Your task to perform on an android device: Open Android settings Image 0: 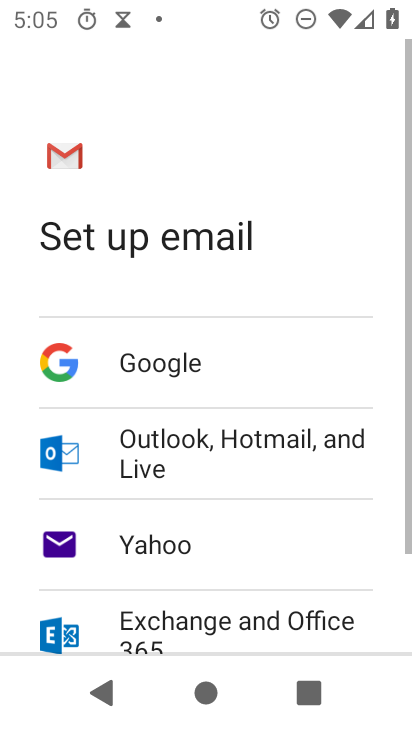
Step 0: press back button
Your task to perform on an android device: Open Android settings Image 1: 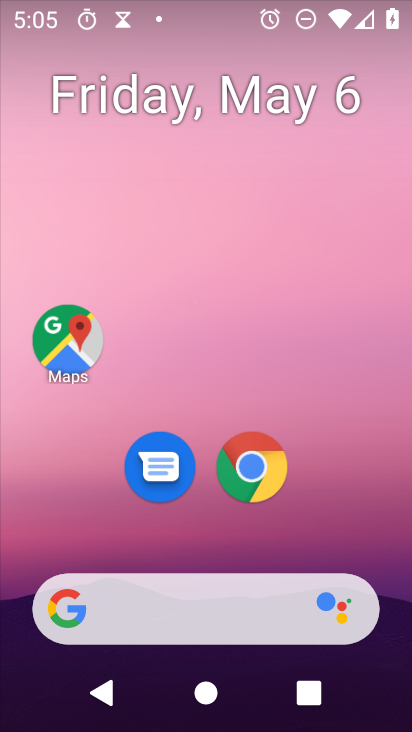
Step 1: drag from (297, 521) to (273, 24)
Your task to perform on an android device: Open Android settings Image 2: 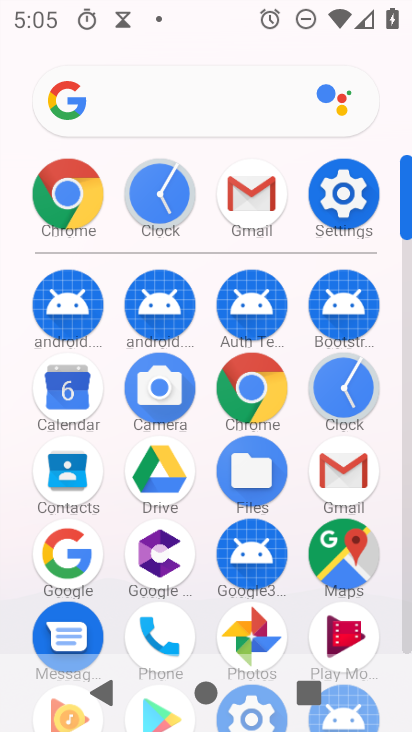
Step 2: click (347, 202)
Your task to perform on an android device: Open Android settings Image 3: 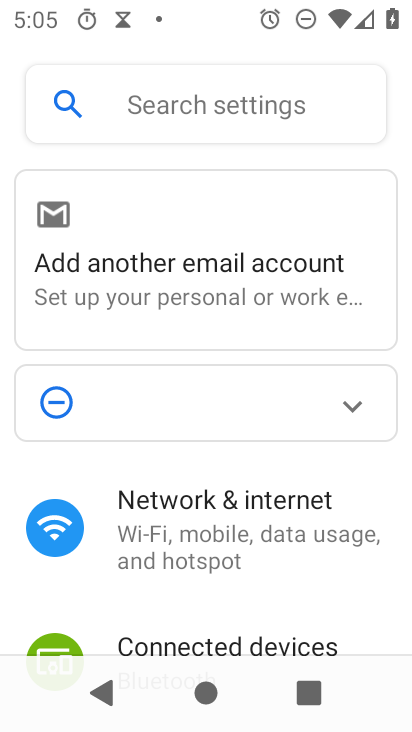
Step 3: drag from (198, 526) to (192, 321)
Your task to perform on an android device: Open Android settings Image 4: 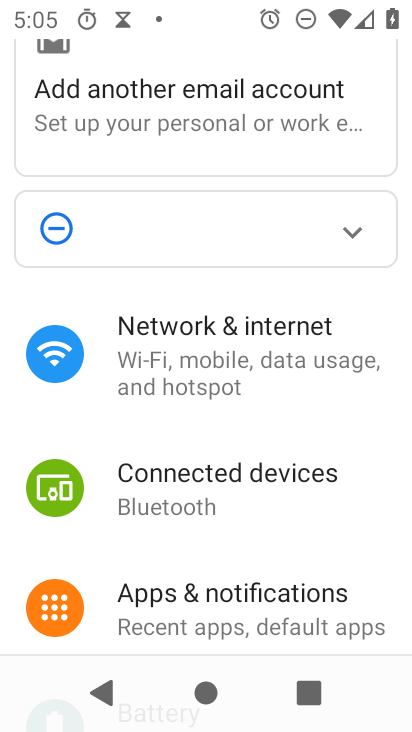
Step 4: drag from (235, 538) to (245, 157)
Your task to perform on an android device: Open Android settings Image 5: 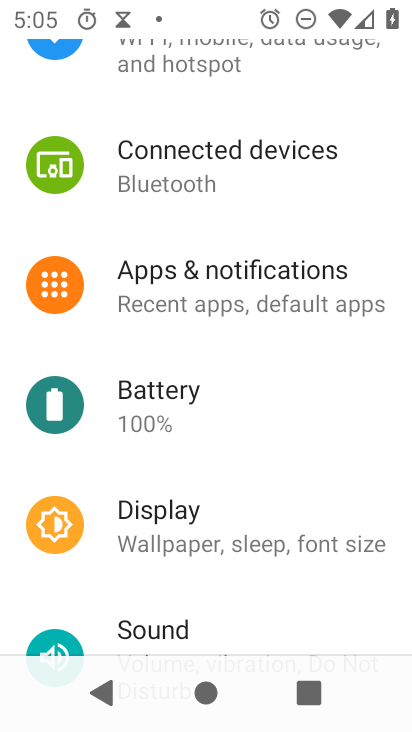
Step 5: drag from (221, 560) to (289, 1)
Your task to perform on an android device: Open Android settings Image 6: 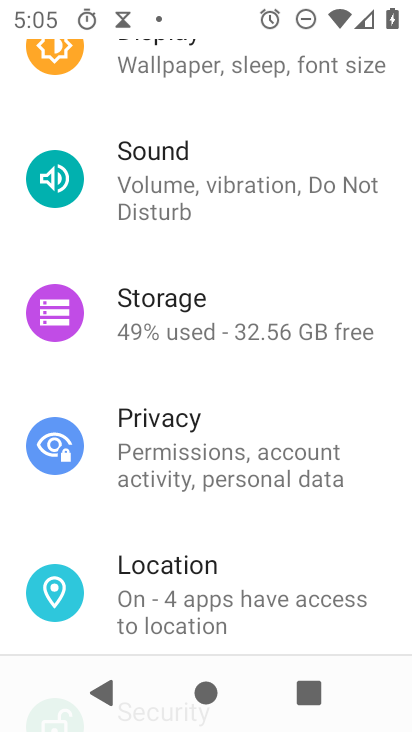
Step 6: drag from (220, 561) to (291, 51)
Your task to perform on an android device: Open Android settings Image 7: 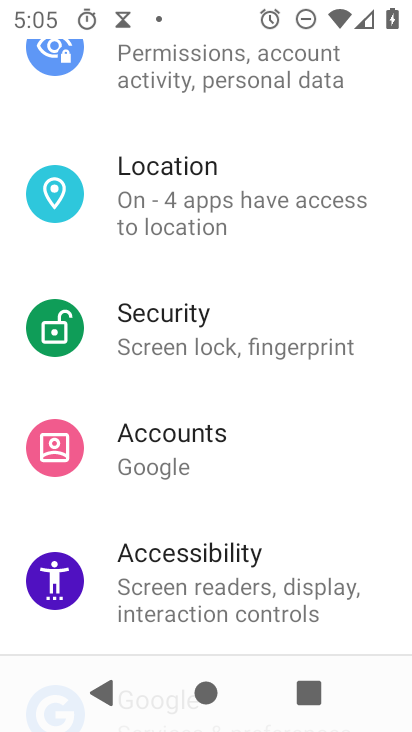
Step 7: drag from (198, 591) to (282, 3)
Your task to perform on an android device: Open Android settings Image 8: 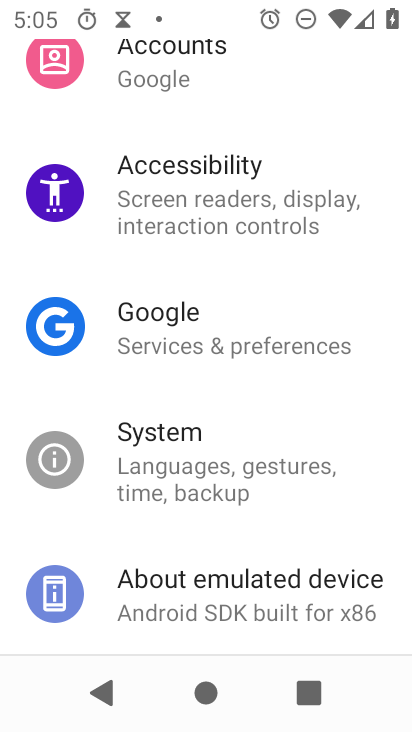
Step 8: click (175, 597)
Your task to perform on an android device: Open Android settings Image 9: 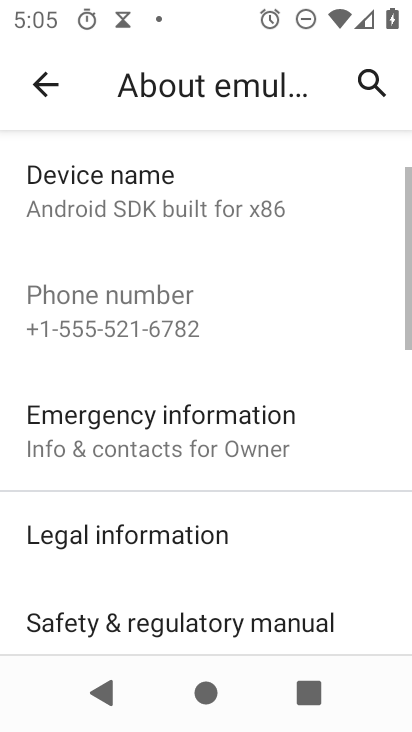
Step 9: drag from (190, 552) to (201, 64)
Your task to perform on an android device: Open Android settings Image 10: 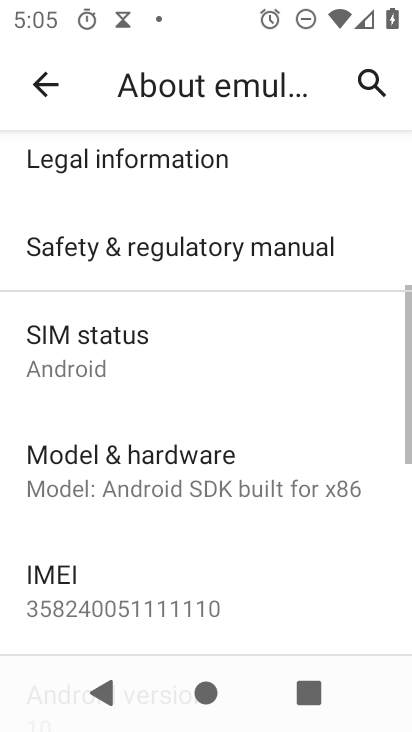
Step 10: drag from (148, 547) to (228, 70)
Your task to perform on an android device: Open Android settings Image 11: 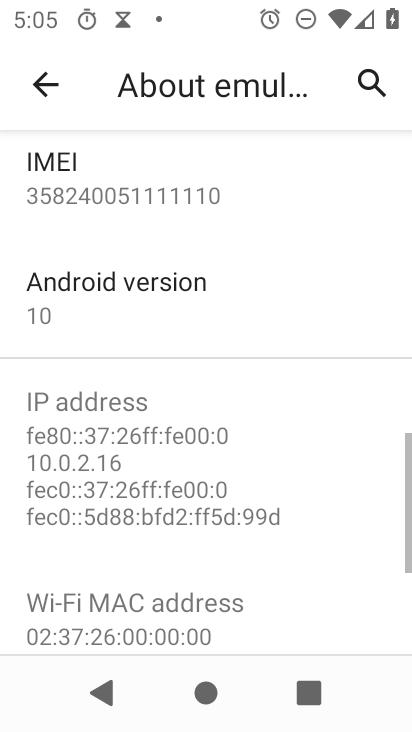
Step 11: click (146, 325)
Your task to perform on an android device: Open Android settings Image 12: 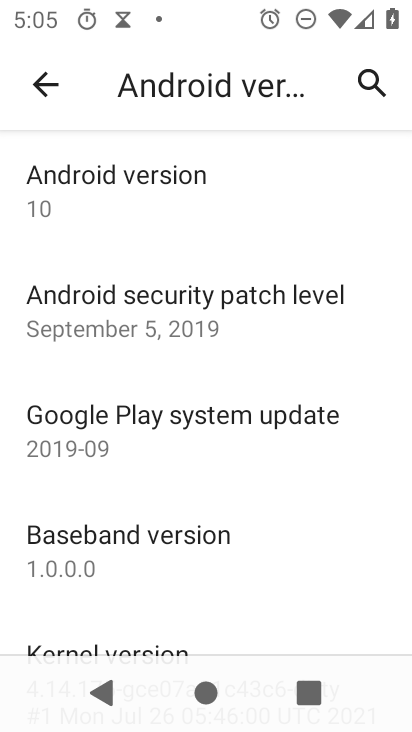
Step 12: task complete